Your task to perform on an android device: Open my contact list Image 0: 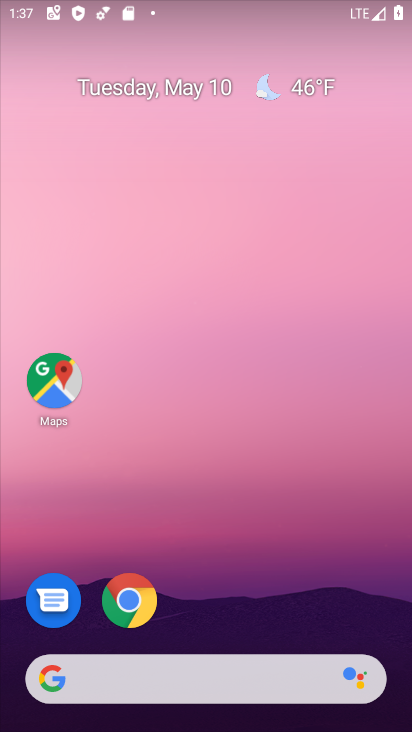
Step 0: drag from (192, 670) to (383, 14)
Your task to perform on an android device: Open my contact list Image 1: 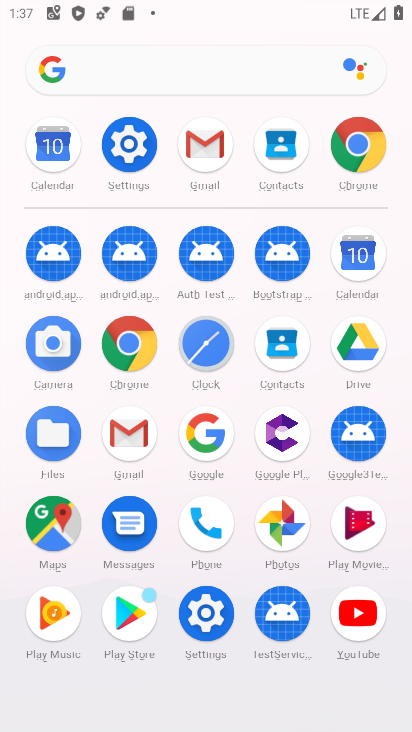
Step 1: click (295, 356)
Your task to perform on an android device: Open my contact list Image 2: 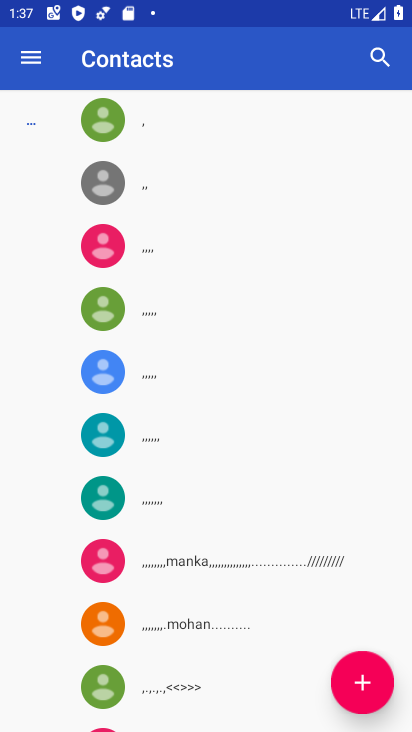
Step 2: task complete